Your task to perform on an android device: turn on sleep mode Image 0: 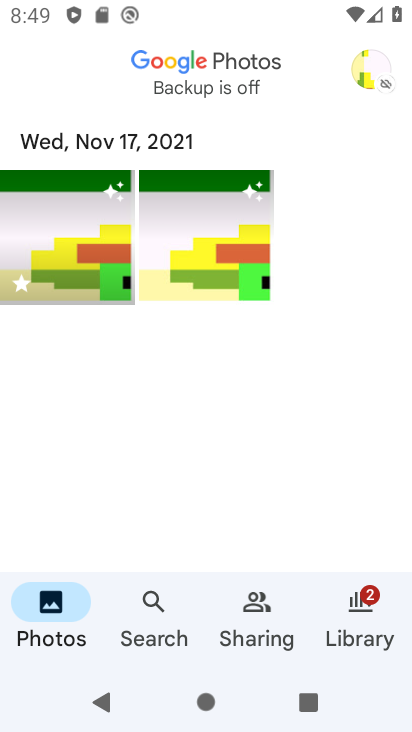
Step 0: press home button
Your task to perform on an android device: turn on sleep mode Image 1: 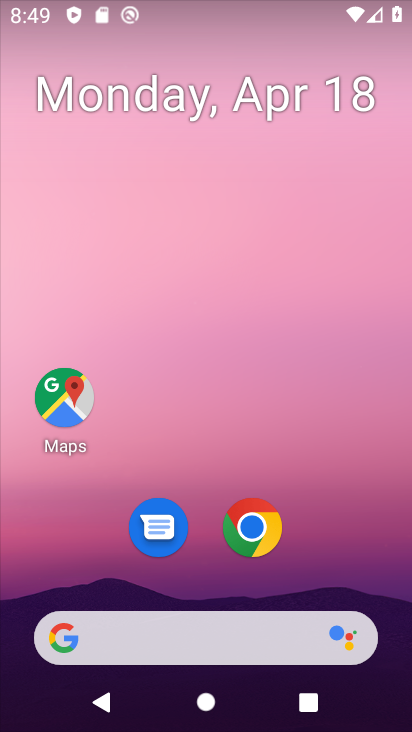
Step 1: drag from (333, 542) to (351, 5)
Your task to perform on an android device: turn on sleep mode Image 2: 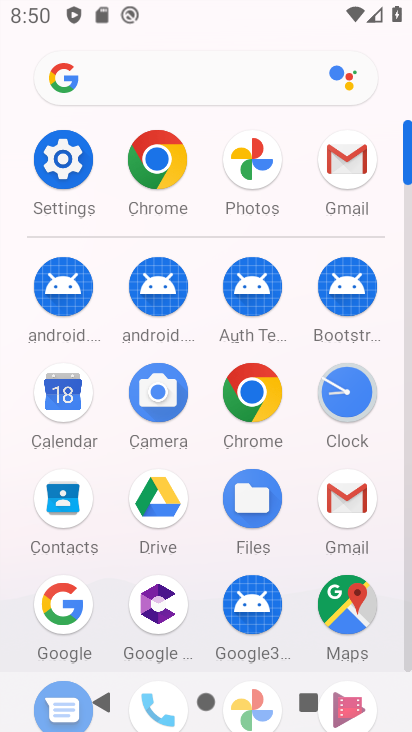
Step 2: drag from (301, 395) to (293, 3)
Your task to perform on an android device: turn on sleep mode Image 3: 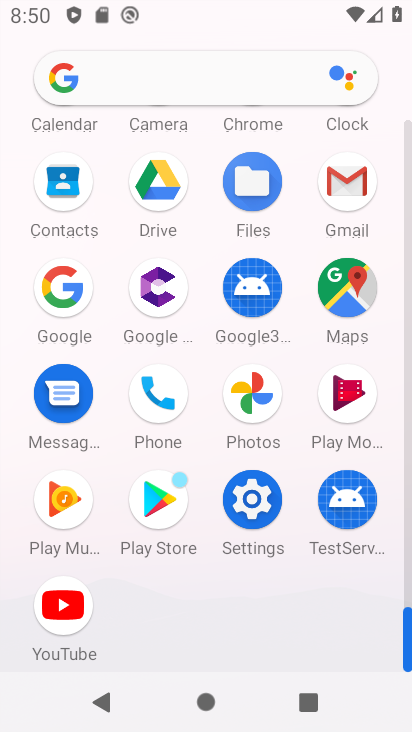
Step 3: click (249, 504)
Your task to perform on an android device: turn on sleep mode Image 4: 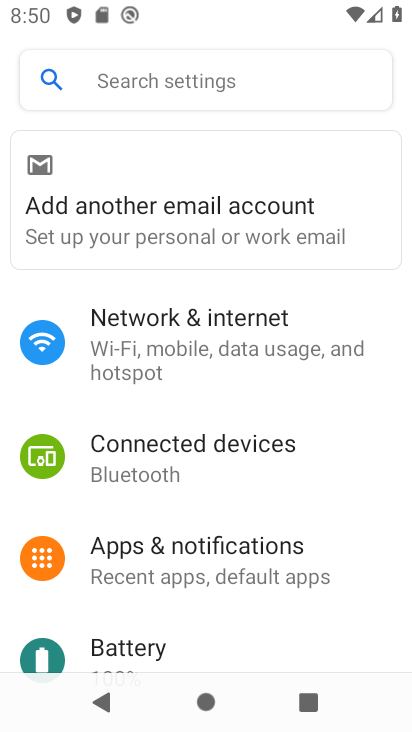
Step 4: drag from (351, 573) to (357, 158)
Your task to perform on an android device: turn on sleep mode Image 5: 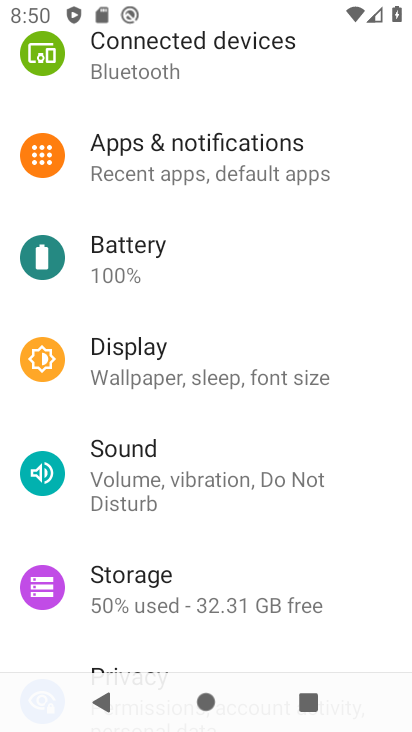
Step 5: click (130, 365)
Your task to perform on an android device: turn on sleep mode Image 6: 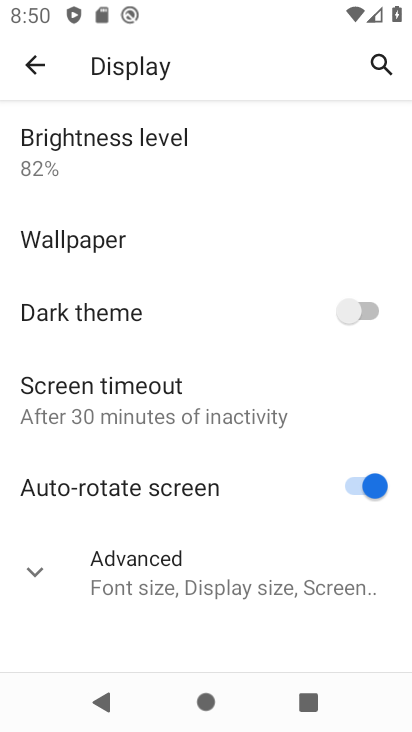
Step 6: task complete